Your task to perform on an android device: turn off notifications settings in the gmail app Image 0: 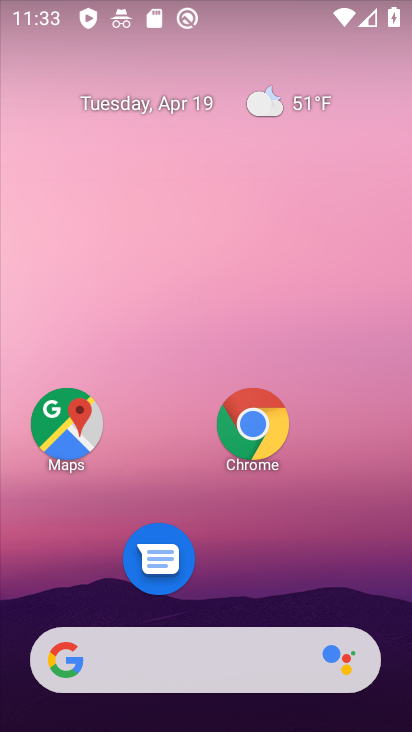
Step 0: drag from (189, 282) to (167, 145)
Your task to perform on an android device: turn off notifications settings in the gmail app Image 1: 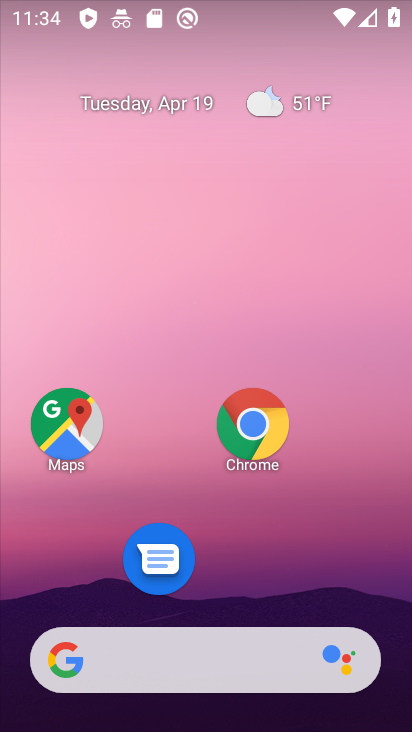
Step 1: drag from (217, 548) to (65, 134)
Your task to perform on an android device: turn off notifications settings in the gmail app Image 2: 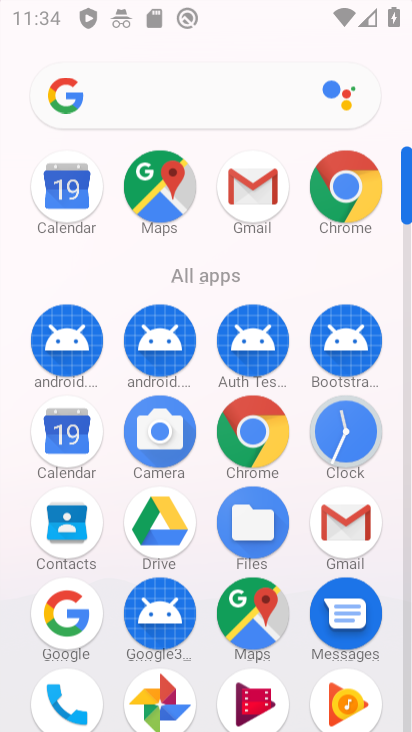
Step 2: drag from (223, 315) to (220, 183)
Your task to perform on an android device: turn off notifications settings in the gmail app Image 3: 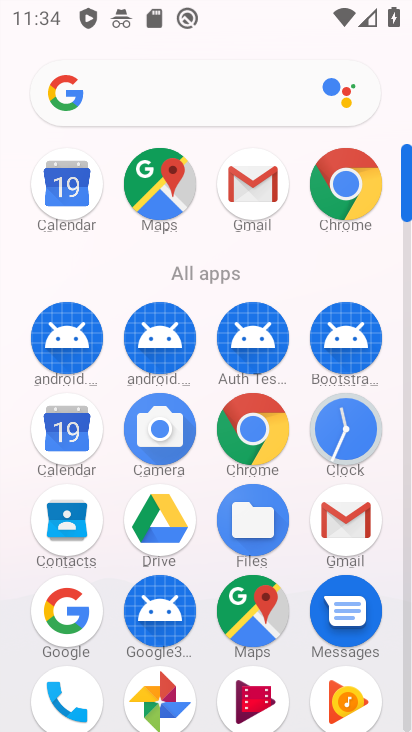
Step 3: click (348, 518)
Your task to perform on an android device: turn off notifications settings in the gmail app Image 4: 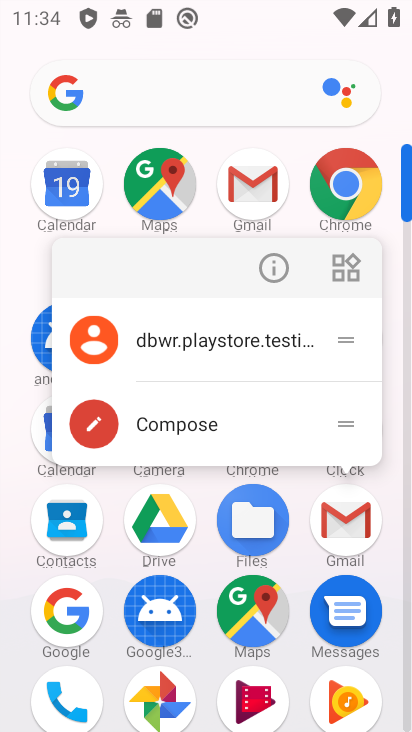
Step 4: click (350, 516)
Your task to perform on an android device: turn off notifications settings in the gmail app Image 5: 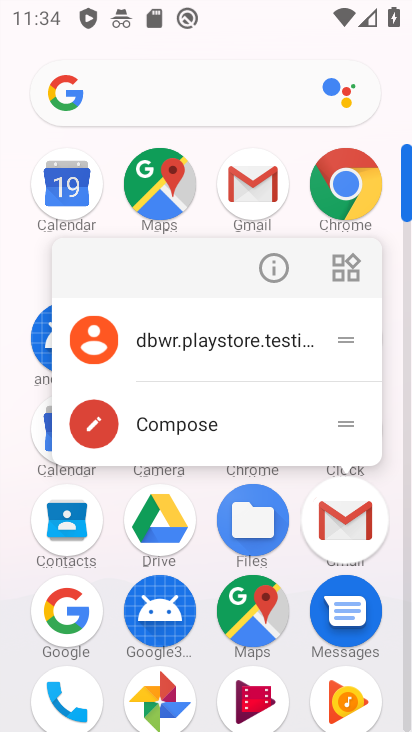
Step 5: click (336, 524)
Your task to perform on an android device: turn off notifications settings in the gmail app Image 6: 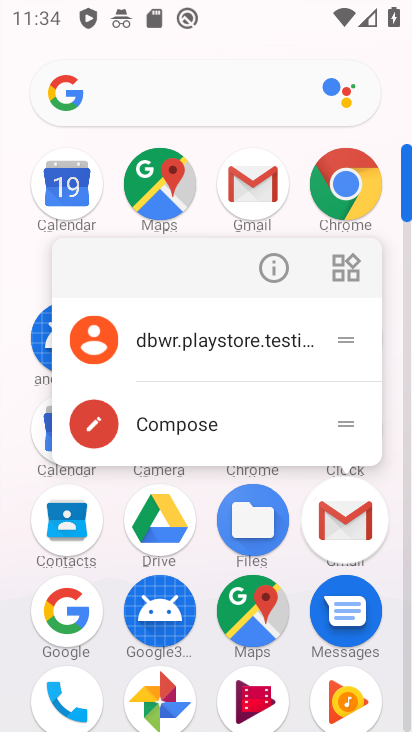
Step 6: click (340, 521)
Your task to perform on an android device: turn off notifications settings in the gmail app Image 7: 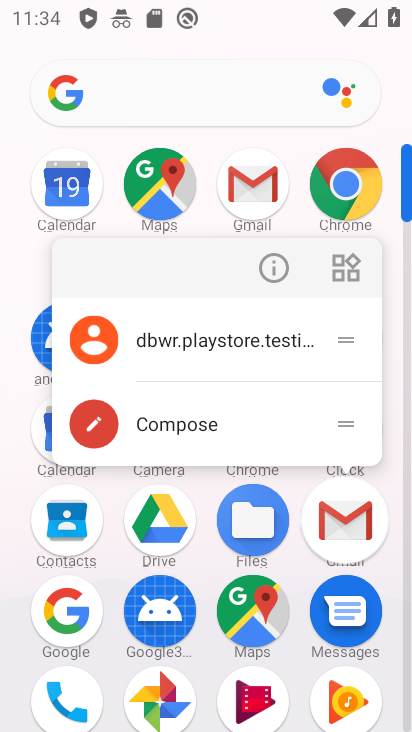
Step 7: click (340, 521)
Your task to perform on an android device: turn off notifications settings in the gmail app Image 8: 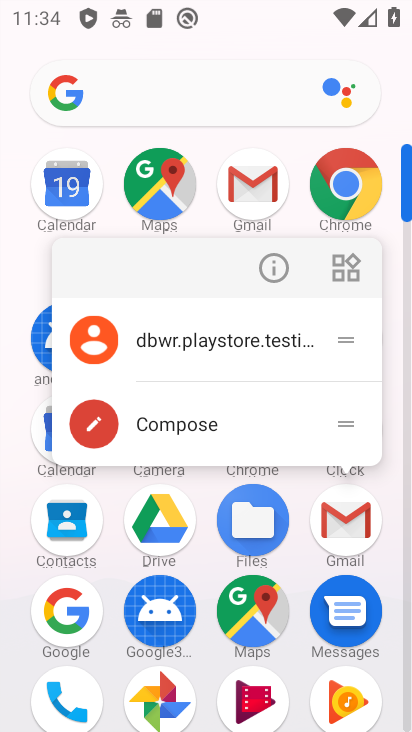
Step 8: click (328, 519)
Your task to perform on an android device: turn off notifications settings in the gmail app Image 9: 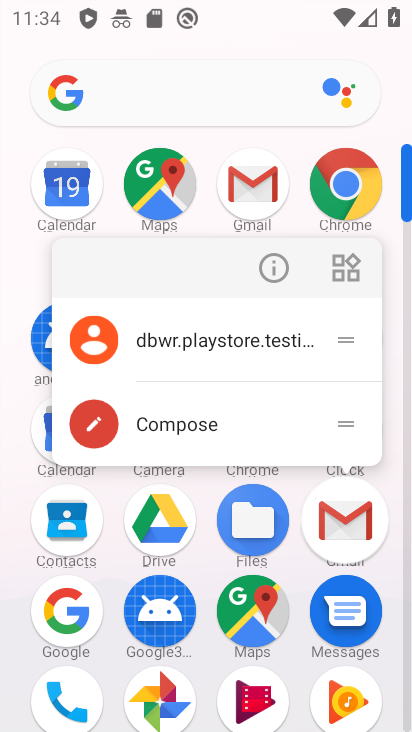
Step 9: click (333, 517)
Your task to perform on an android device: turn off notifications settings in the gmail app Image 10: 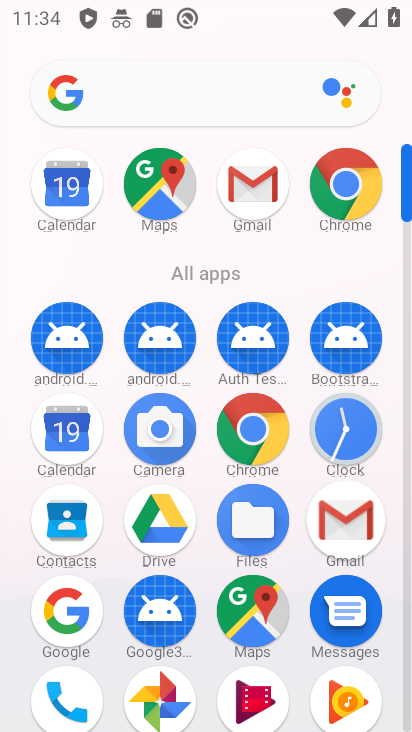
Step 10: click (333, 515)
Your task to perform on an android device: turn off notifications settings in the gmail app Image 11: 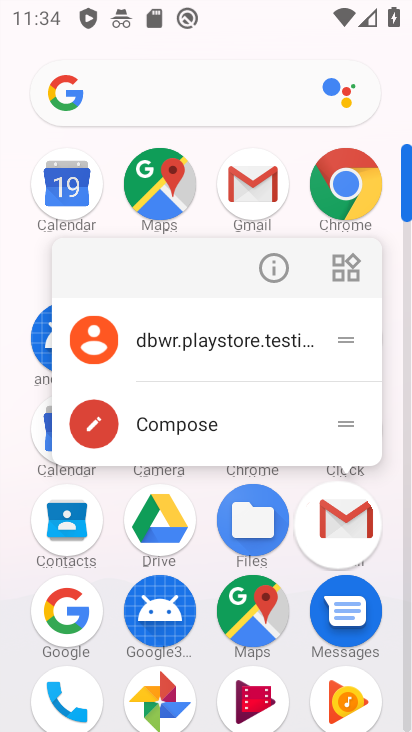
Step 11: click (341, 492)
Your task to perform on an android device: turn off notifications settings in the gmail app Image 12: 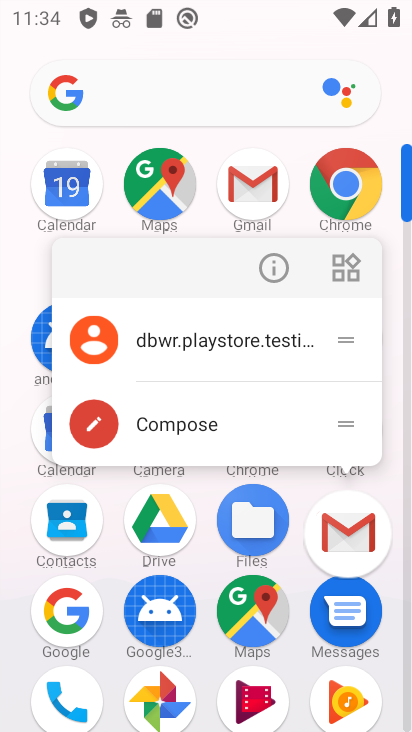
Step 12: click (344, 507)
Your task to perform on an android device: turn off notifications settings in the gmail app Image 13: 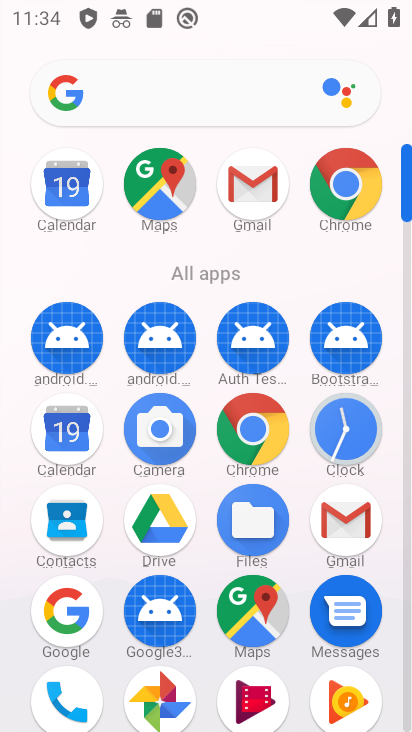
Step 13: click (349, 516)
Your task to perform on an android device: turn off notifications settings in the gmail app Image 14: 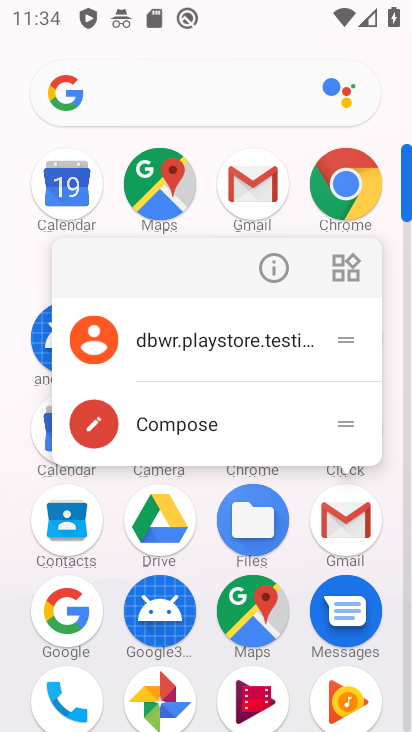
Step 14: click (347, 515)
Your task to perform on an android device: turn off notifications settings in the gmail app Image 15: 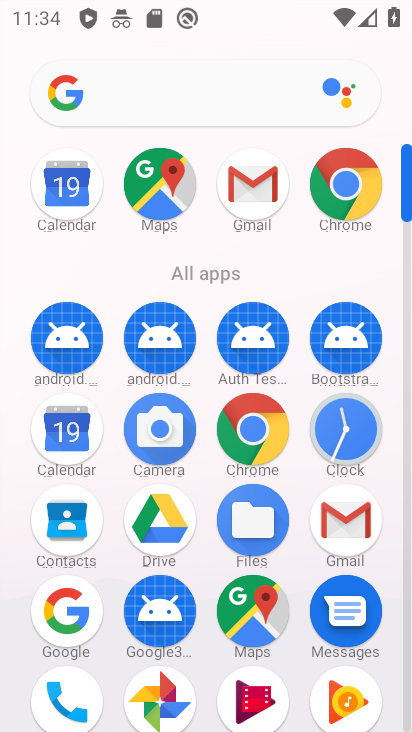
Step 15: click (347, 515)
Your task to perform on an android device: turn off notifications settings in the gmail app Image 16: 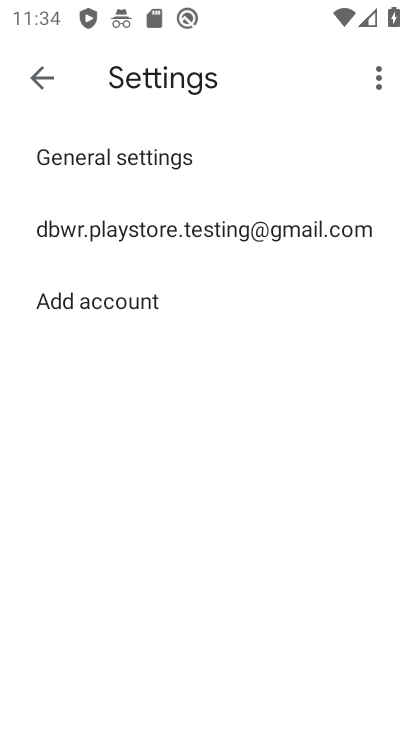
Step 16: click (32, 66)
Your task to perform on an android device: turn off notifications settings in the gmail app Image 17: 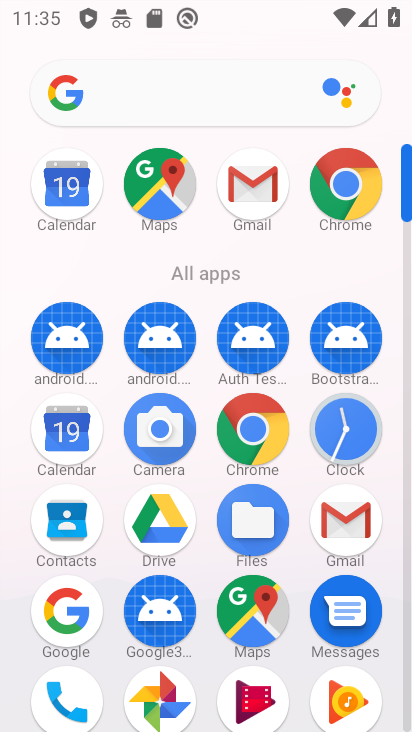
Step 17: click (354, 499)
Your task to perform on an android device: turn off notifications settings in the gmail app Image 18: 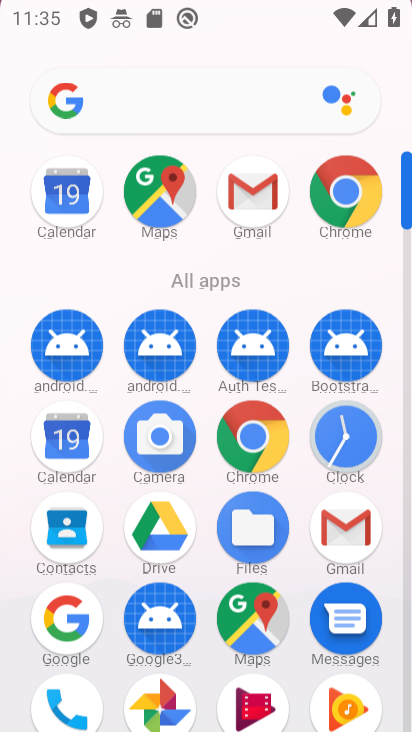
Step 18: click (348, 519)
Your task to perform on an android device: turn off notifications settings in the gmail app Image 19: 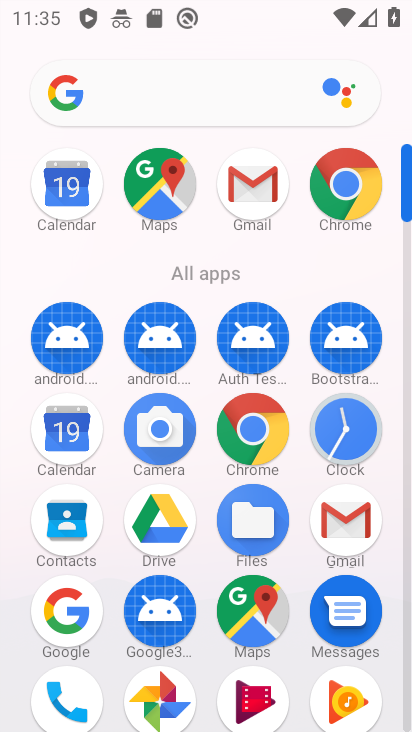
Step 19: click (348, 519)
Your task to perform on an android device: turn off notifications settings in the gmail app Image 20: 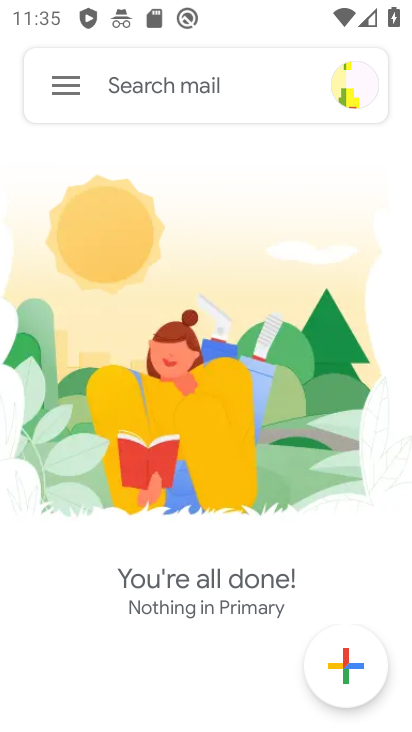
Step 20: click (65, 80)
Your task to perform on an android device: turn off notifications settings in the gmail app Image 21: 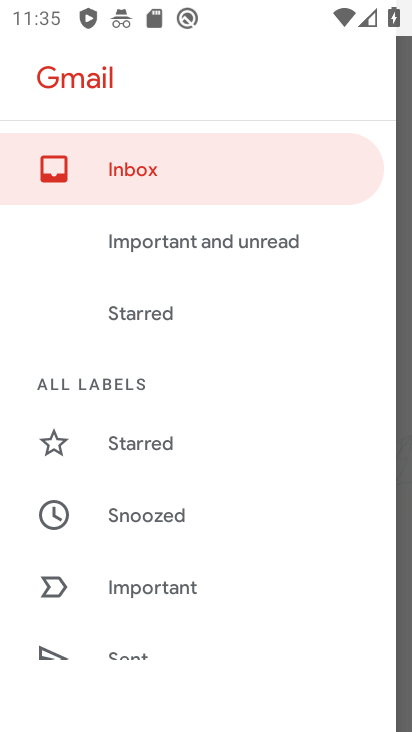
Step 21: drag from (187, 534) to (195, 92)
Your task to perform on an android device: turn off notifications settings in the gmail app Image 22: 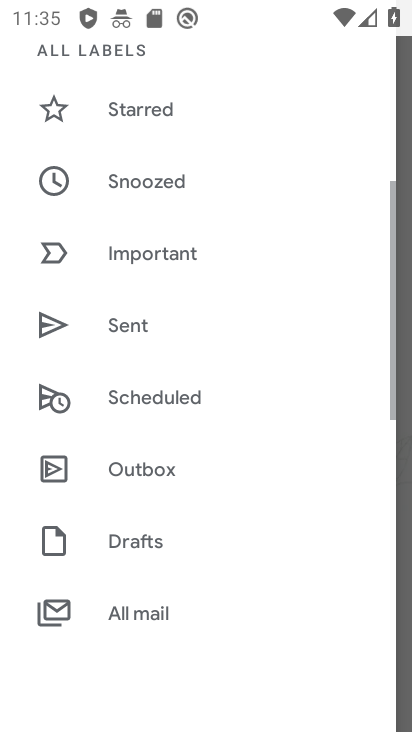
Step 22: drag from (206, 539) to (134, 42)
Your task to perform on an android device: turn off notifications settings in the gmail app Image 23: 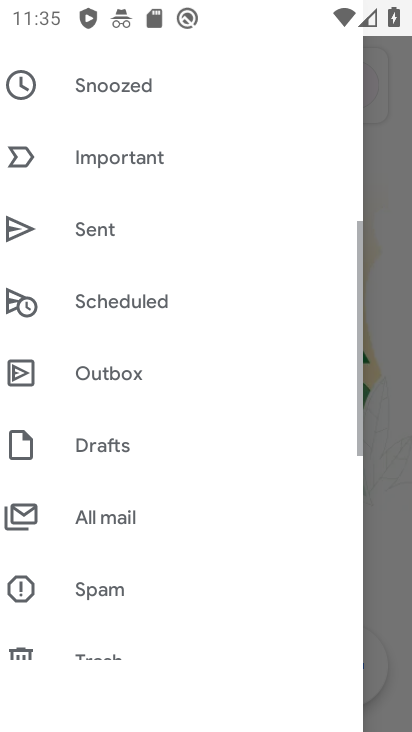
Step 23: drag from (134, 293) to (153, 6)
Your task to perform on an android device: turn off notifications settings in the gmail app Image 24: 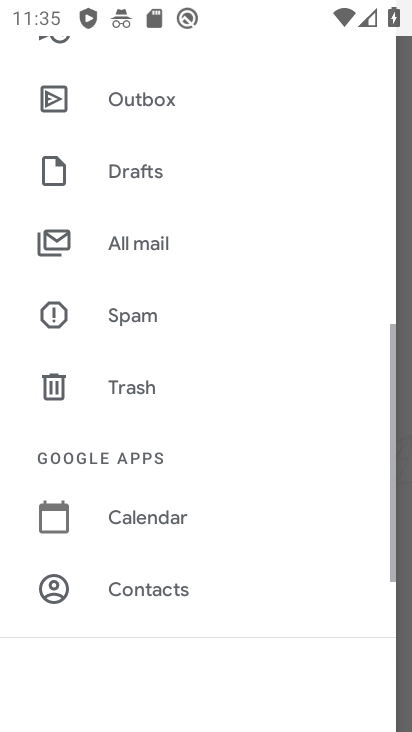
Step 24: drag from (138, 480) to (248, 58)
Your task to perform on an android device: turn off notifications settings in the gmail app Image 25: 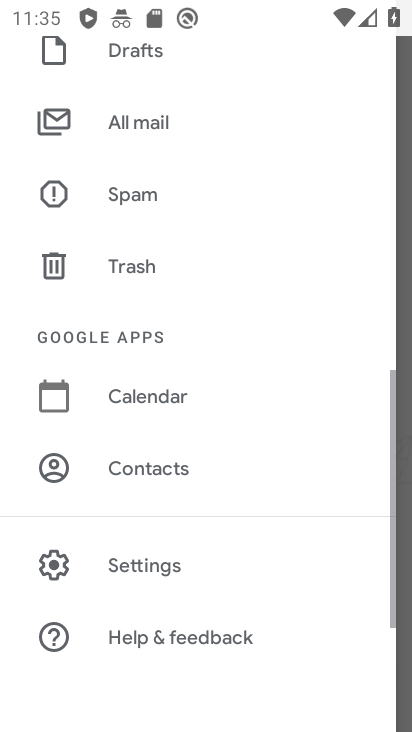
Step 25: drag from (161, 278) to (160, 139)
Your task to perform on an android device: turn off notifications settings in the gmail app Image 26: 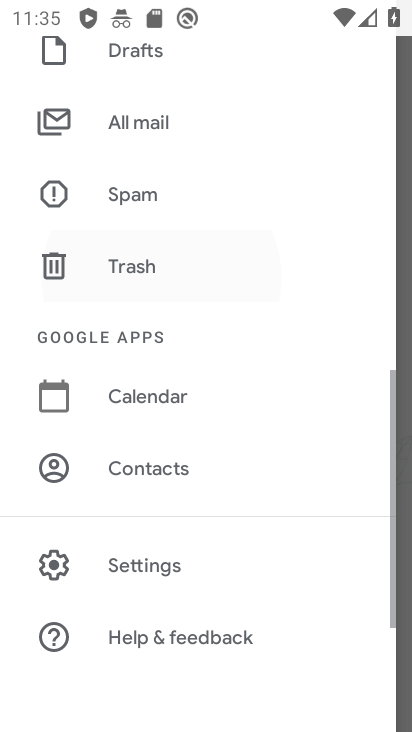
Step 26: drag from (178, 491) to (171, 21)
Your task to perform on an android device: turn off notifications settings in the gmail app Image 27: 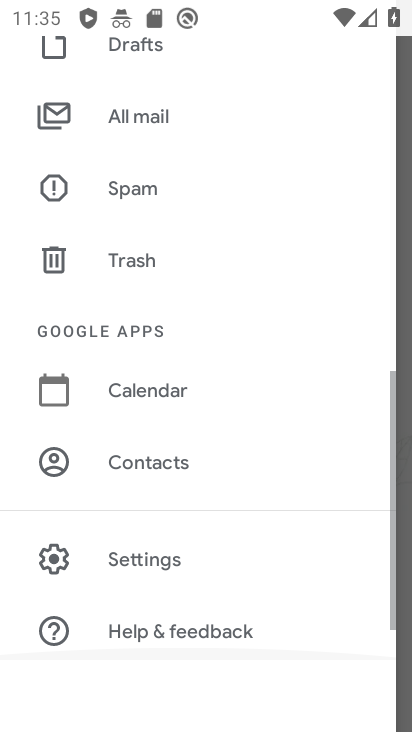
Step 27: click (144, 531)
Your task to perform on an android device: turn off notifications settings in the gmail app Image 28: 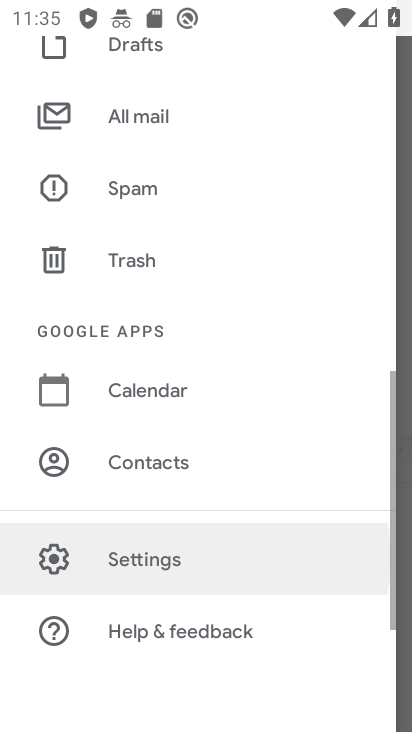
Step 28: click (146, 546)
Your task to perform on an android device: turn off notifications settings in the gmail app Image 29: 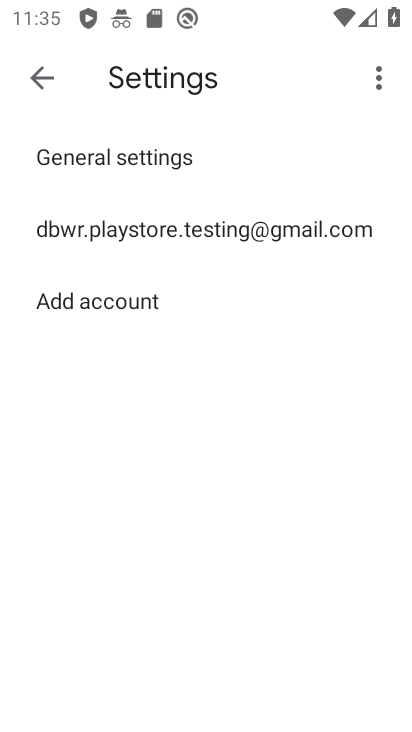
Step 29: click (140, 236)
Your task to perform on an android device: turn off notifications settings in the gmail app Image 30: 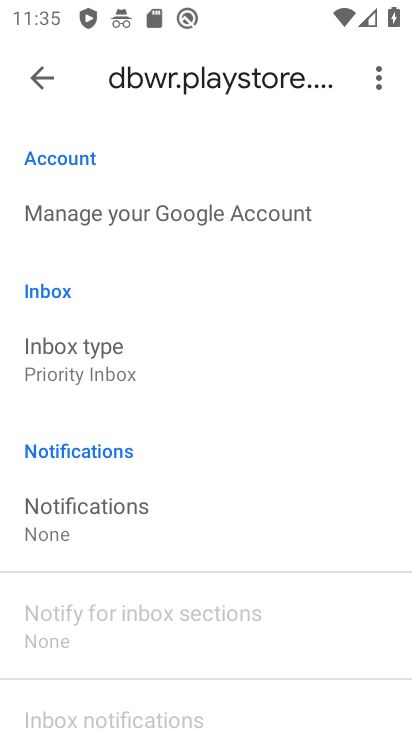
Step 30: click (54, 516)
Your task to perform on an android device: turn off notifications settings in the gmail app Image 31: 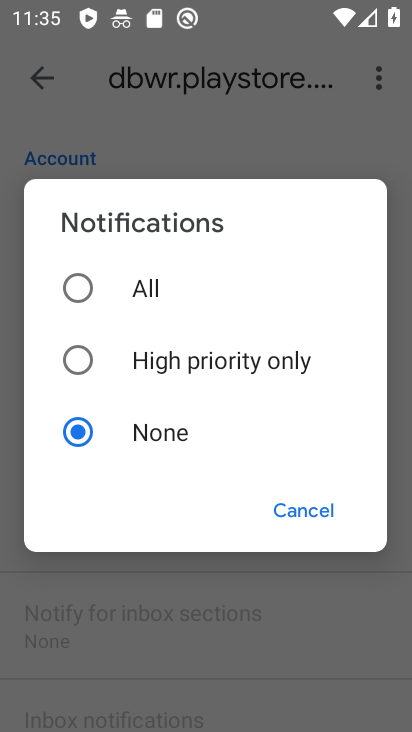
Step 31: click (310, 503)
Your task to perform on an android device: turn off notifications settings in the gmail app Image 32: 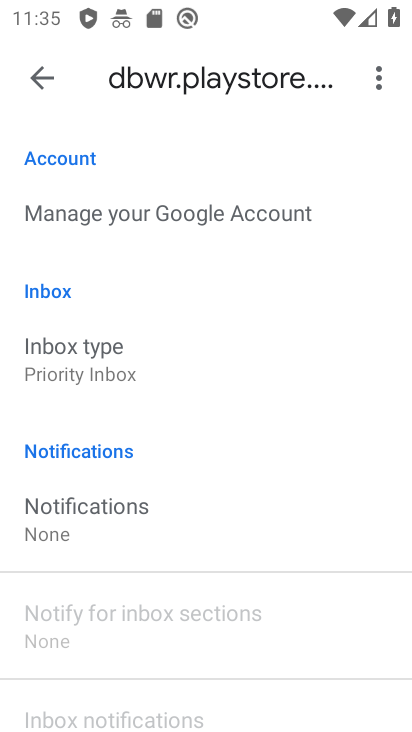
Step 32: task complete